Your task to perform on an android device: Go to display settings Image 0: 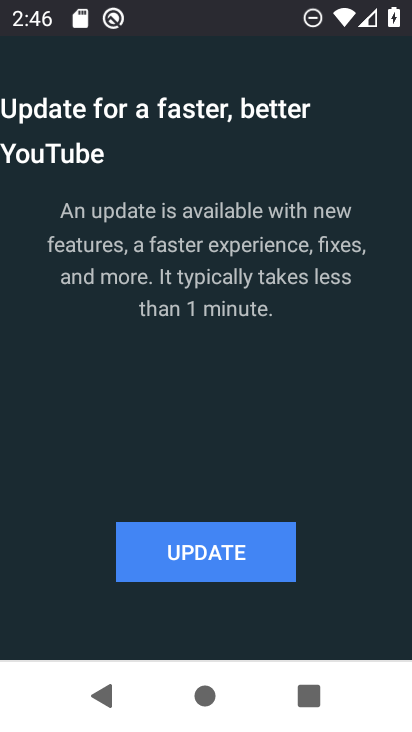
Step 0: press home button
Your task to perform on an android device: Go to display settings Image 1: 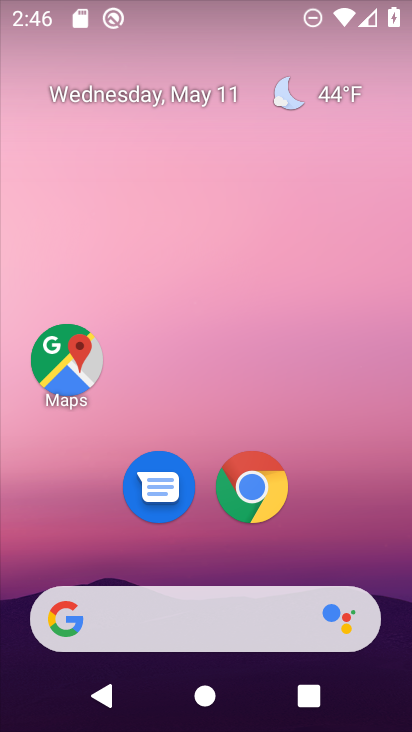
Step 1: drag from (215, 540) to (298, 57)
Your task to perform on an android device: Go to display settings Image 2: 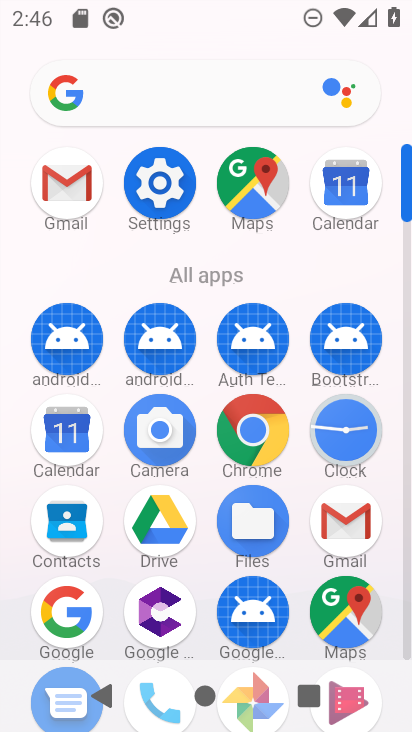
Step 2: click (170, 169)
Your task to perform on an android device: Go to display settings Image 3: 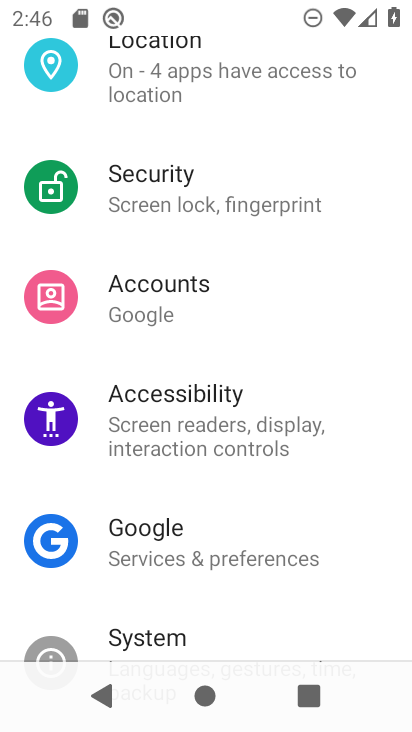
Step 3: drag from (173, 614) to (289, 100)
Your task to perform on an android device: Go to display settings Image 4: 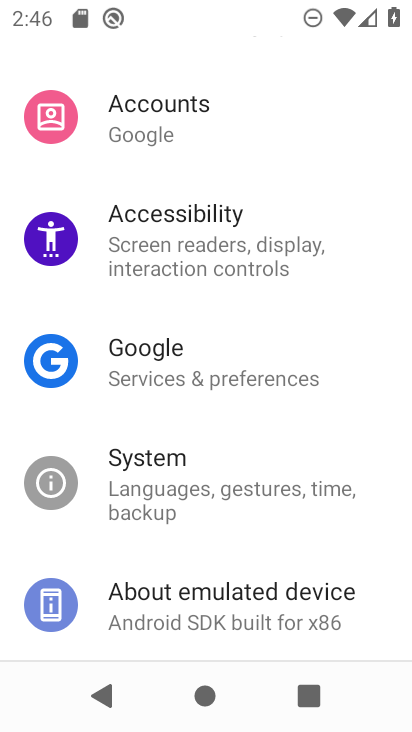
Step 4: drag from (176, 583) to (304, 82)
Your task to perform on an android device: Go to display settings Image 5: 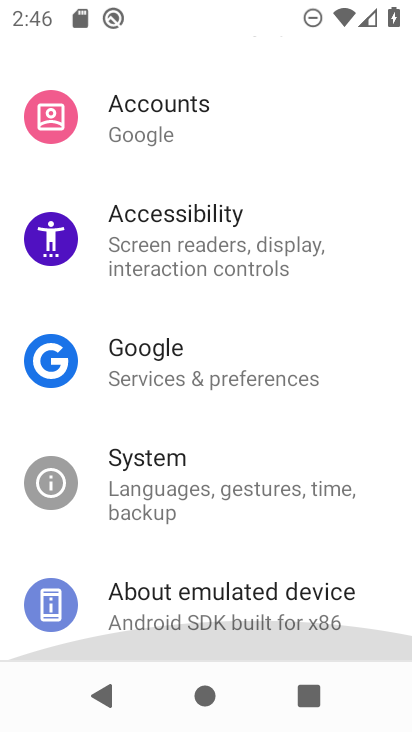
Step 5: drag from (254, 158) to (178, 654)
Your task to perform on an android device: Go to display settings Image 6: 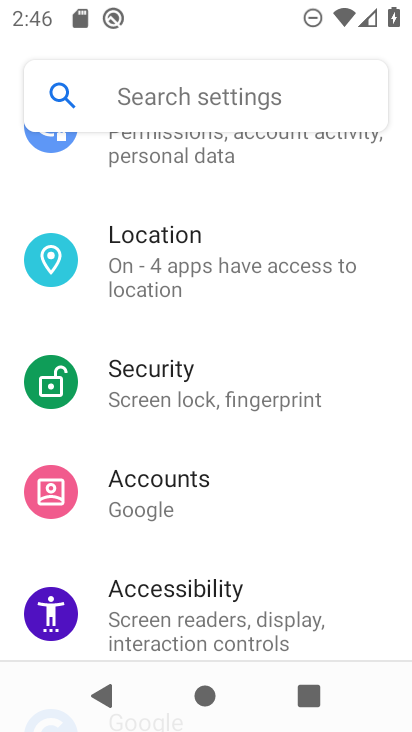
Step 6: drag from (206, 242) to (201, 621)
Your task to perform on an android device: Go to display settings Image 7: 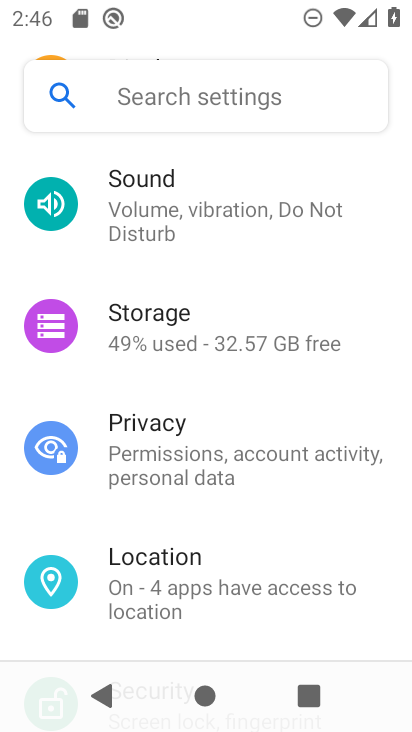
Step 7: drag from (150, 267) to (150, 592)
Your task to perform on an android device: Go to display settings Image 8: 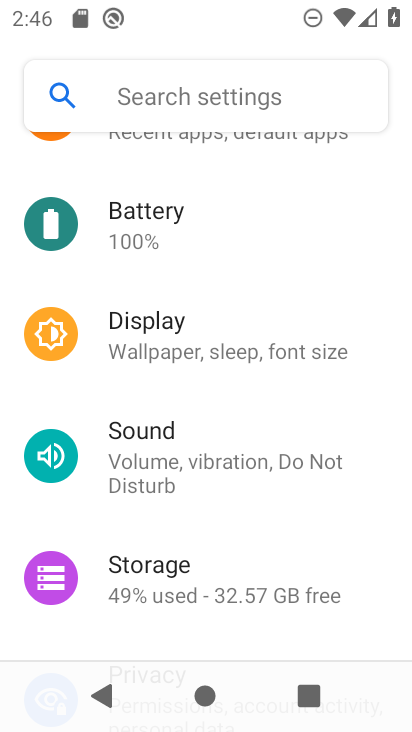
Step 8: click (130, 335)
Your task to perform on an android device: Go to display settings Image 9: 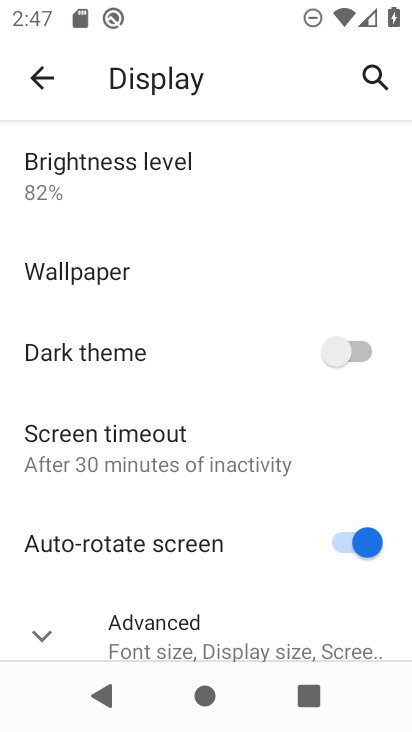
Step 9: task complete